Your task to perform on an android device: Open Google Chrome Image 0: 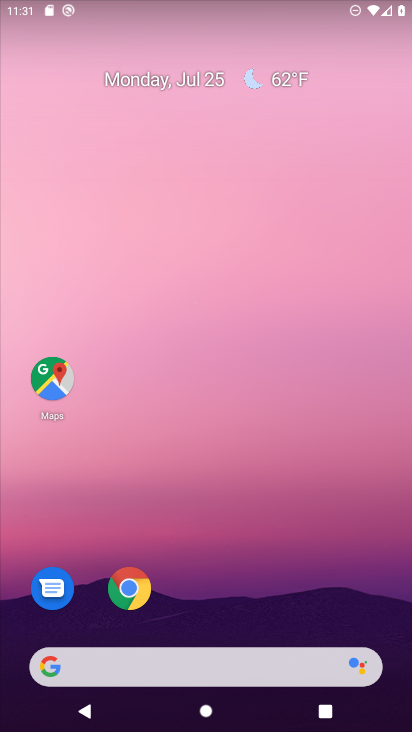
Step 0: click (145, 584)
Your task to perform on an android device: Open Google Chrome Image 1: 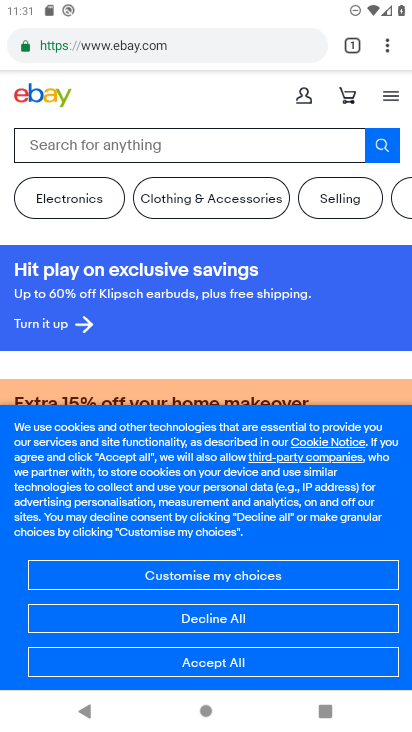
Step 1: click (347, 50)
Your task to perform on an android device: Open Google Chrome Image 2: 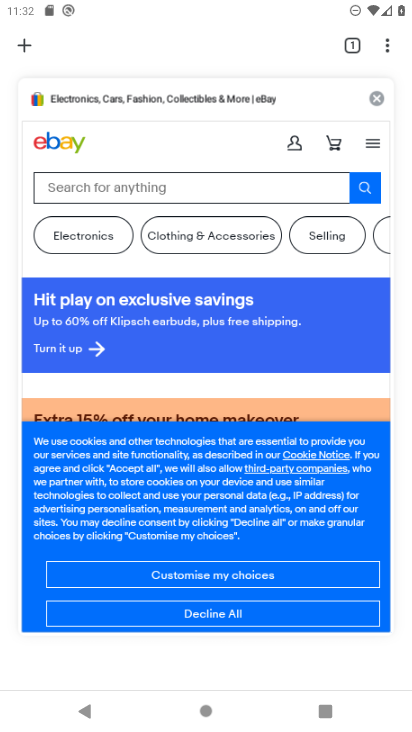
Step 2: click (380, 102)
Your task to perform on an android device: Open Google Chrome Image 3: 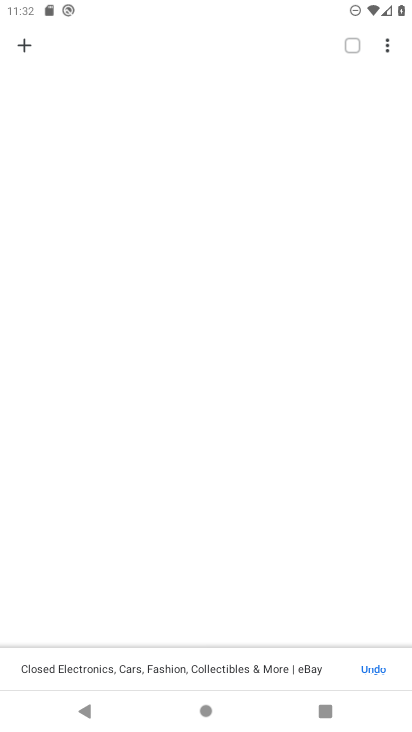
Step 3: click (24, 39)
Your task to perform on an android device: Open Google Chrome Image 4: 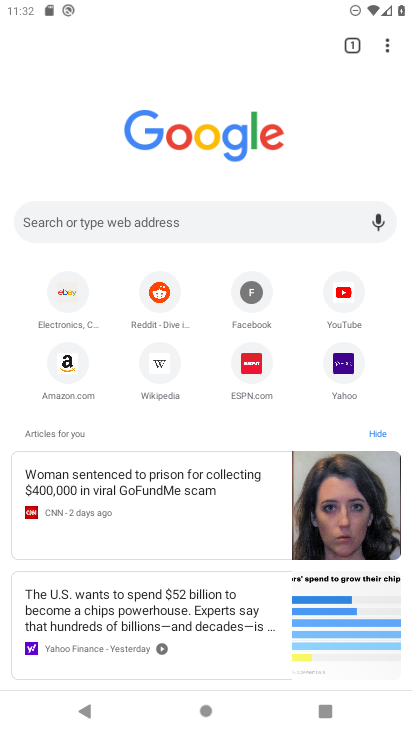
Step 4: task complete